Your task to perform on an android device: Open my contact list Image 0: 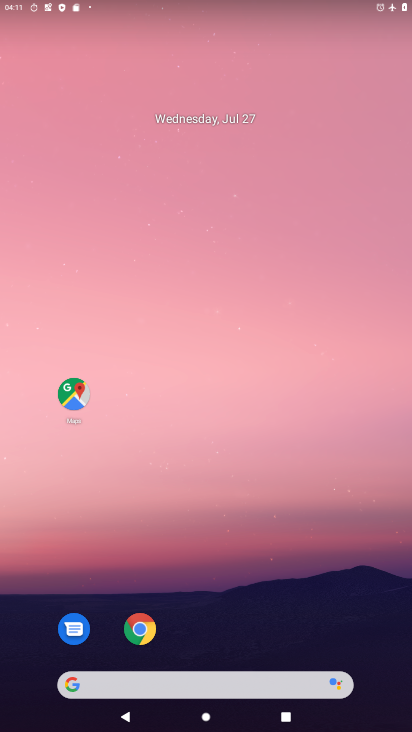
Step 0: drag from (321, 642) to (264, 69)
Your task to perform on an android device: Open my contact list Image 1: 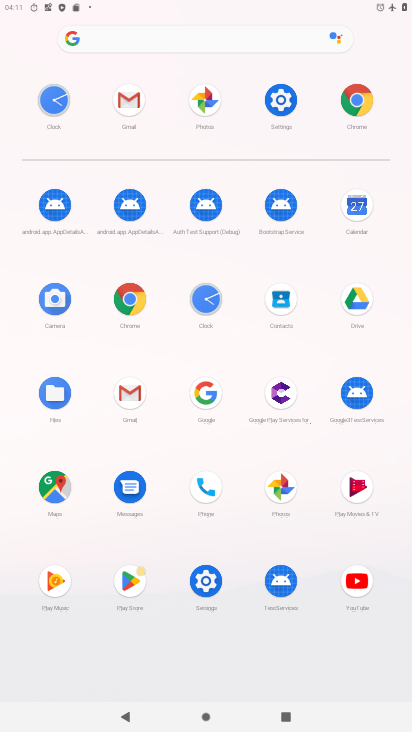
Step 1: click (284, 288)
Your task to perform on an android device: Open my contact list Image 2: 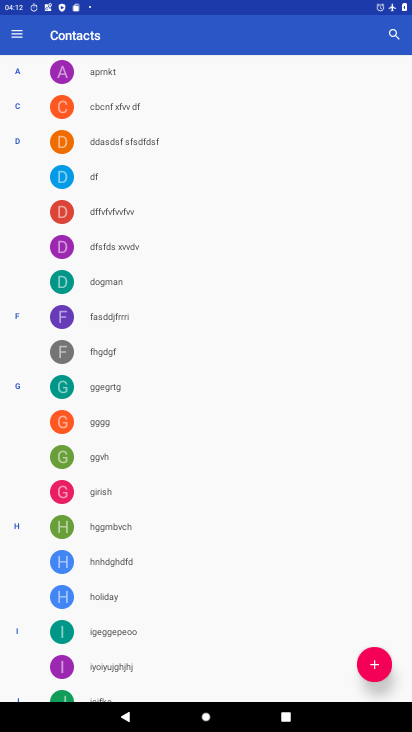
Step 2: task complete